Your task to perform on an android device: uninstall "PUBG MOBILE" Image 0: 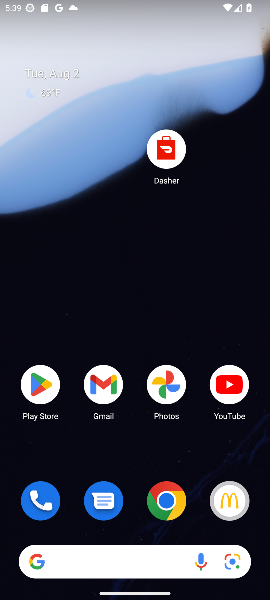
Step 0: click (50, 383)
Your task to perform on an android device: uninstall "PUBG MOBILE" Image 1: 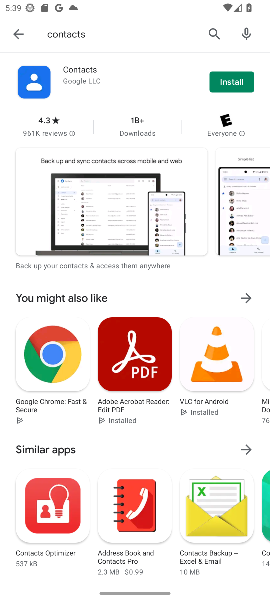
Step 1: click (212, 41)
Your task to perform on an android device: uninstall "PUBG MOBILE" Image 2: 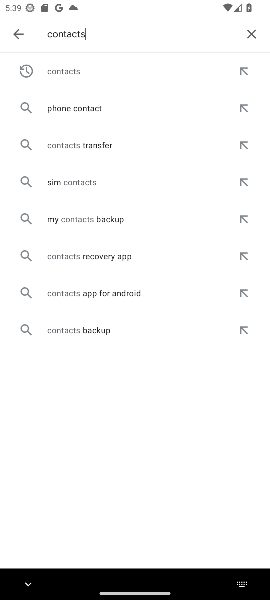
Step 2: click (247, 37)
Your task to perform on an android device: uninstall "PUBG MOBILE" Image 3: 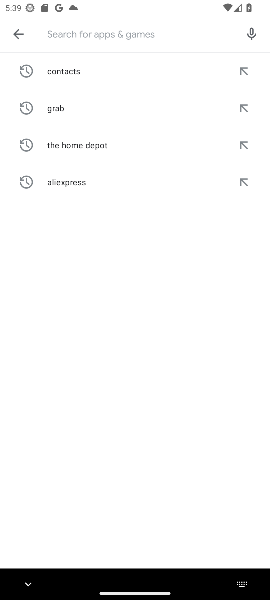
Step 3: type "PUBG MOBILE"
Your task to perform on an android device: uninstall "PUBG MOBILE" Image 4: 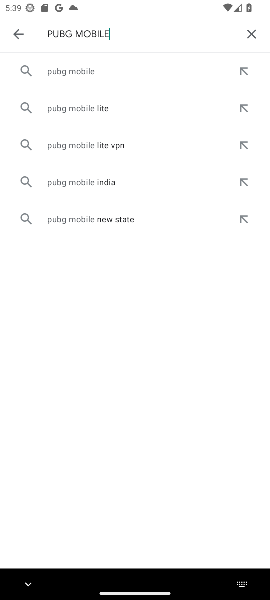
Step 4: click (64, 79)
Your task to perform on an android device: uninstall "PUBG MOBILE" Image 5: 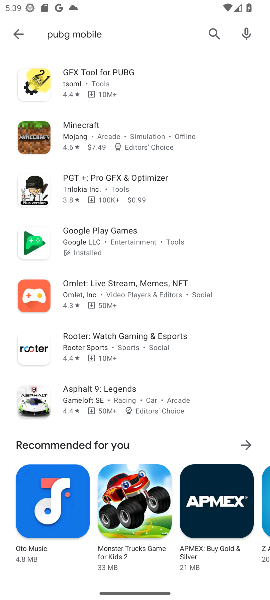
Step 5: task complete